Your task to perform on an android device: Open Yahoo.com Image 0: 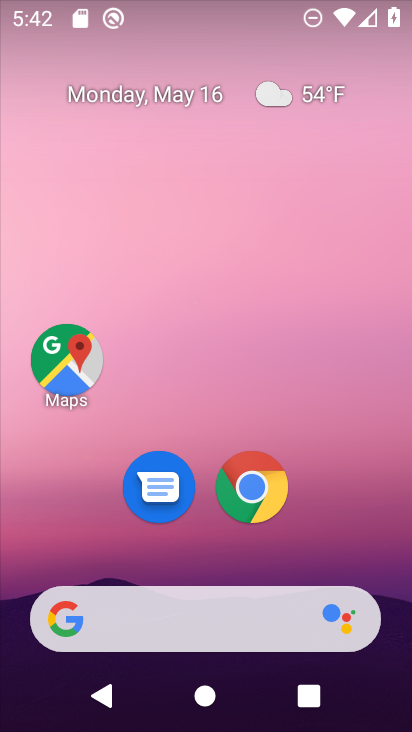
Step 0: click (248, 484)
Your task to perform on an android device: Open Yahoo.com Image 1: 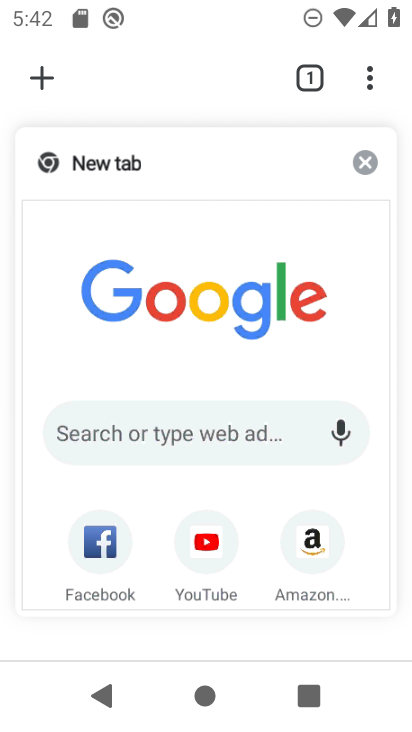
Step 1: drag from (219, 510) to (222, 199)
Your task to perform on an android device: Open Yahoo.com Image 2: 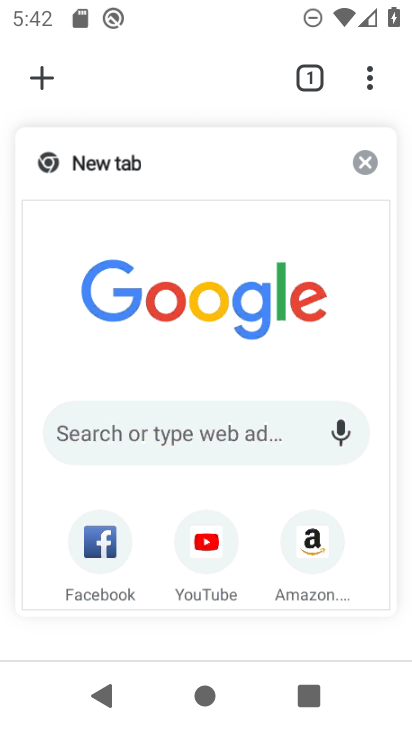
Step 2: drag from (256, 591) to (265, 231)
Your task to perform on an android device: Open Yahoo.com Image 3: 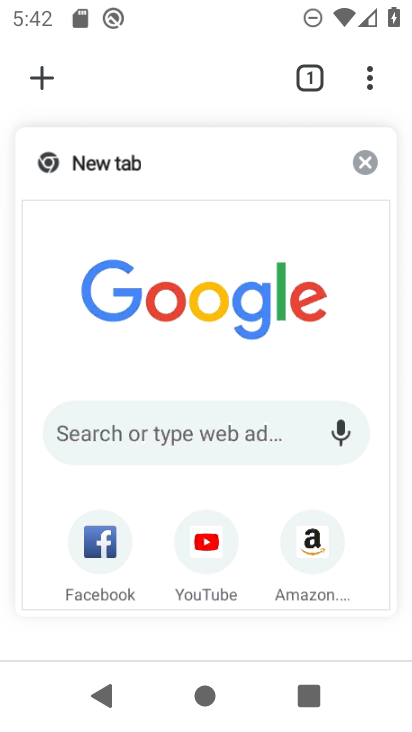
Step 3: click (313, 259)
Your task to perform on an android device: Open Yahoo.com Image 4: 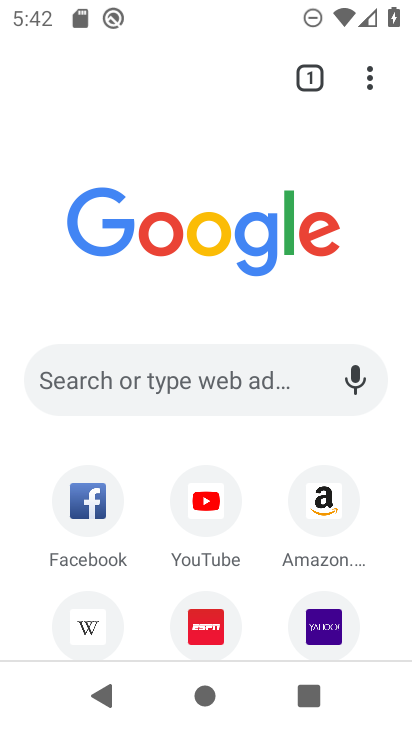
Step 4: click (326, 638)
Your task to perform on an android device: Open Yahoo.com Image 5: 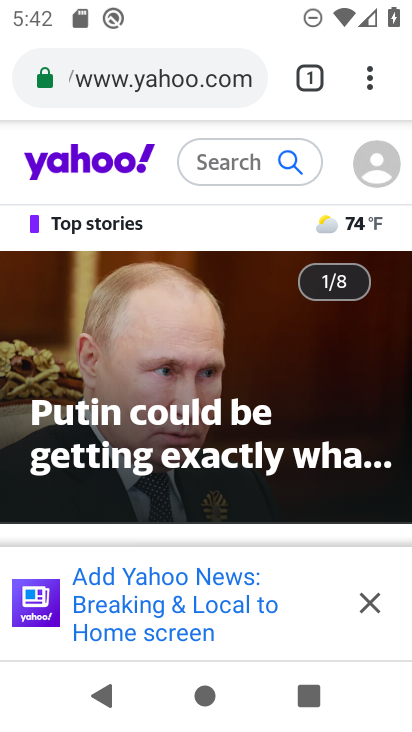
Step 5: click (367, 608)
Your task to perform on an android device: Open Yahoo.com Image 6: 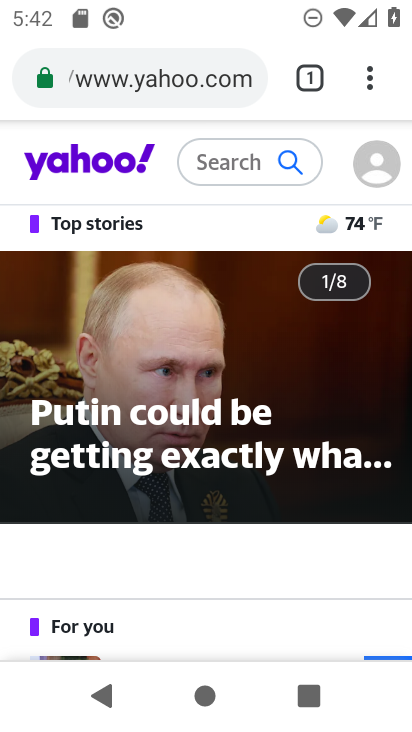
Step 6: task complete